Your task to perform on an android device: check android version Image 0: 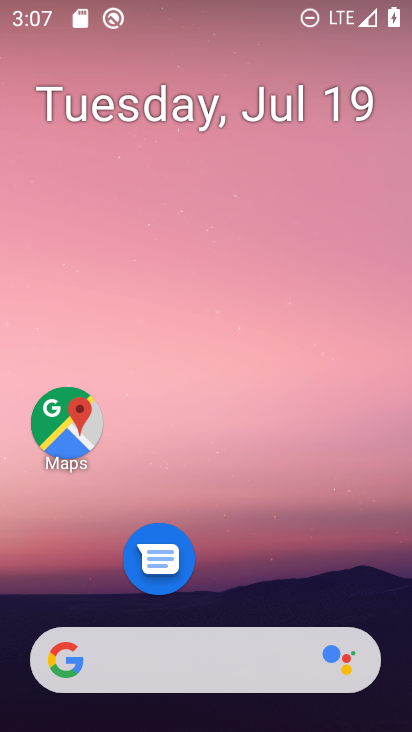
Step 0: drag from (232, 612) to (410, 238)
Your task to perform on an android device: check android version Image 1: 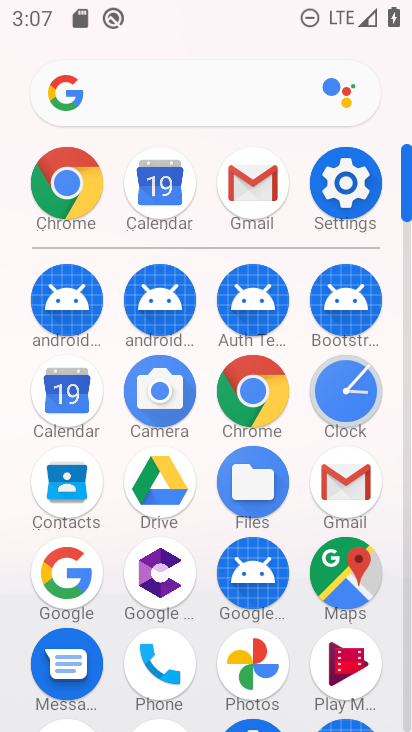
Step 1: click (330, 182)
Your task to perform on an android device: check android version Image 2: 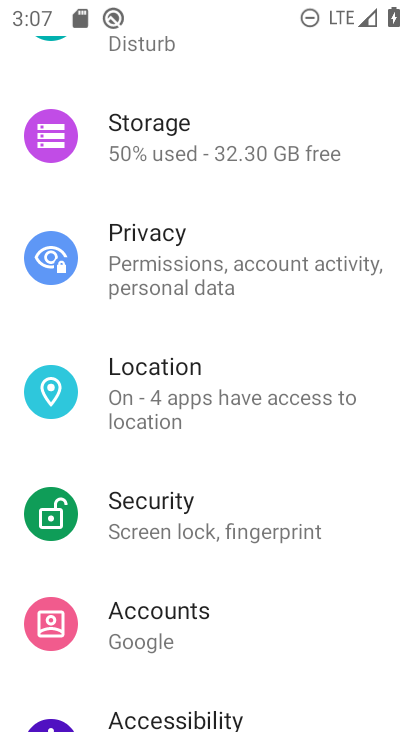
Step 2: drag from (175, 577) to (257, 176)
Your task to perform on an android device: check android version Image 3: 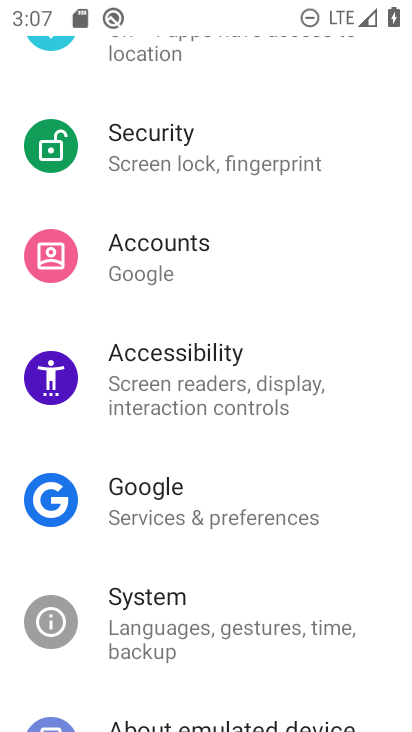
Step 3: drag from (198, 580) to (259, 226)
Your task to perform on an android device: check android version Image 4: 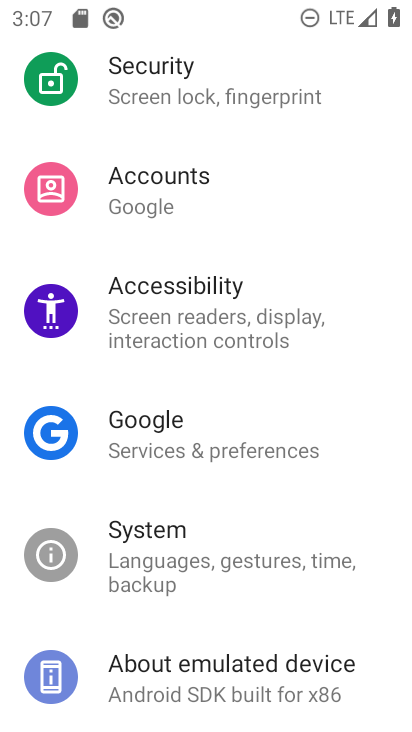
Step 4: click (201, 664)
Your task to perform on an android device: check android version Image 5: 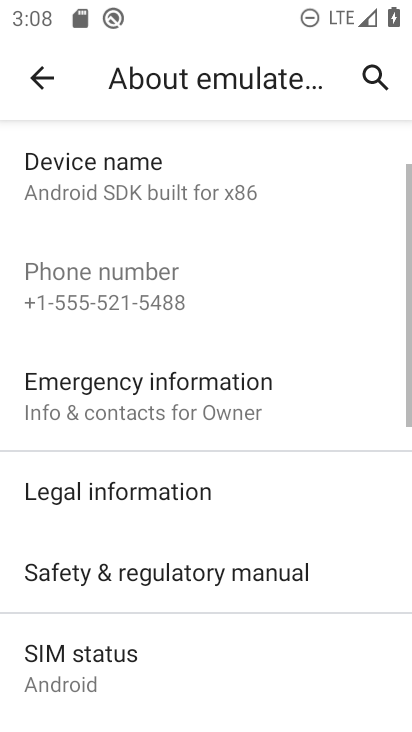
Step 5: drag from (210, 590) to (153, 246)
Your task to perform on an android device: check android version Image 6: 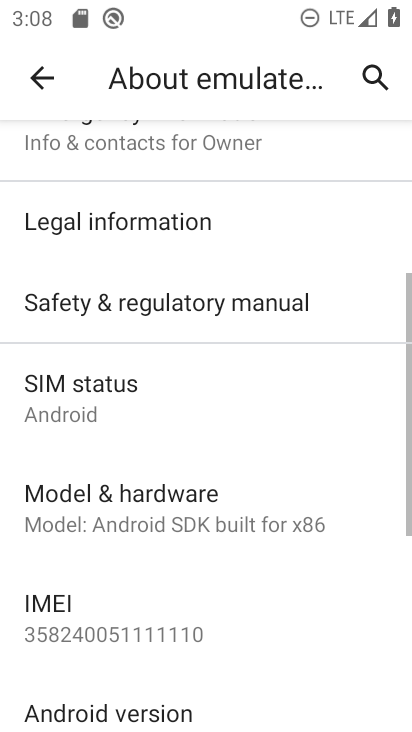
Step 6: drag from (168, 656) to (132, 405)
Your task to perform on an android device: check android version Image 7: 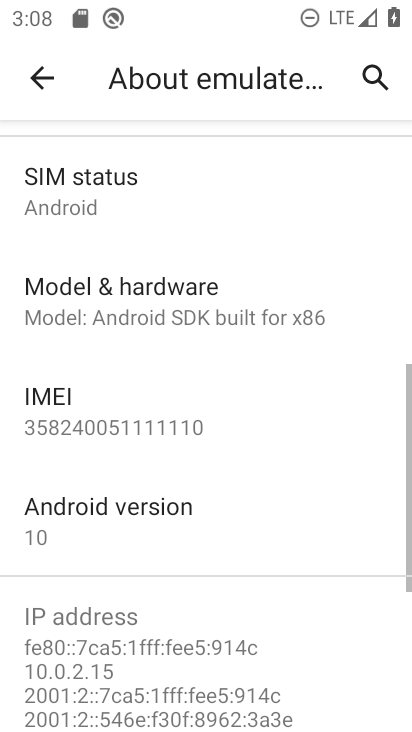
Step 7: click (163, 614)
Your task to perform on an android device: check android version Image 8: 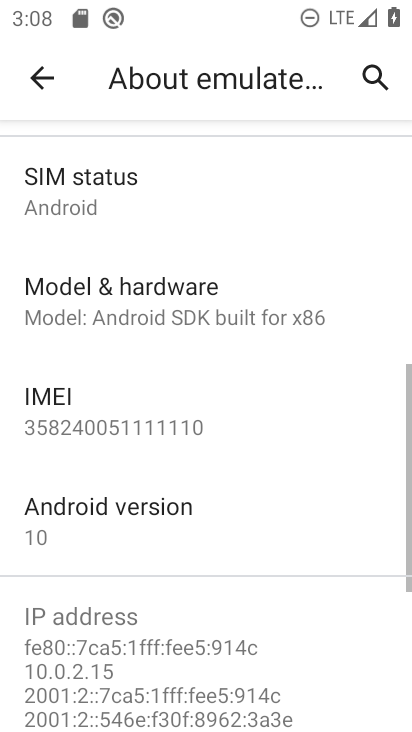
Step 8: click (149, 517)
Your task to perform on an android device: check android version Image 9: 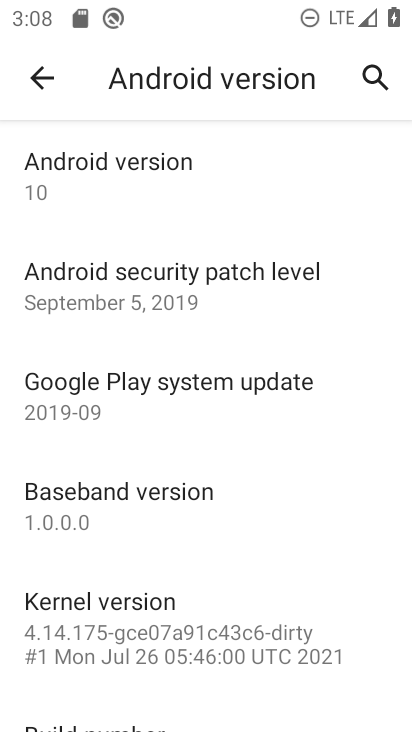
Step 9: task complete